Your task to perform on an android device: snooze an email in the gmail app Image 0: 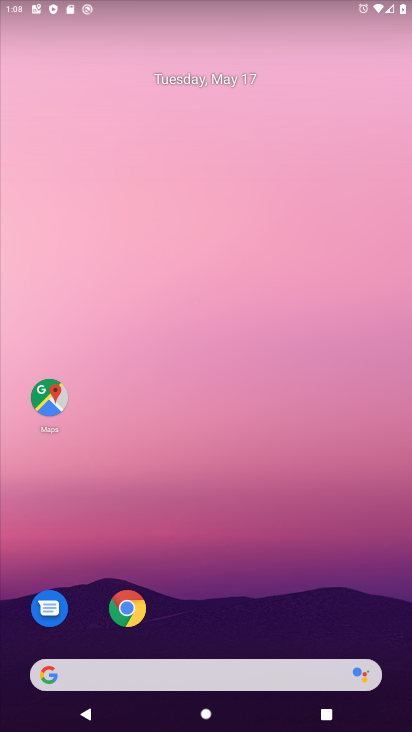
Step 0: drag from (204, 628) to (207, 225)
Your task to perform on an android device: snooze an email in the gmail app Image 1: 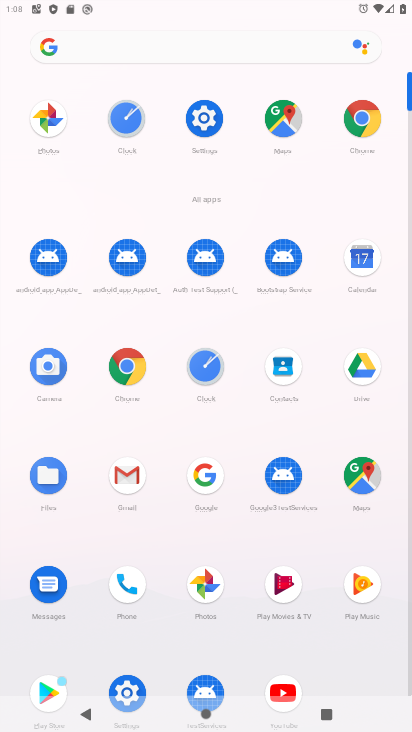
Step 1: click (132, 464)
Your task to perform on an android device: snooze an email in the gmail app Image 2: 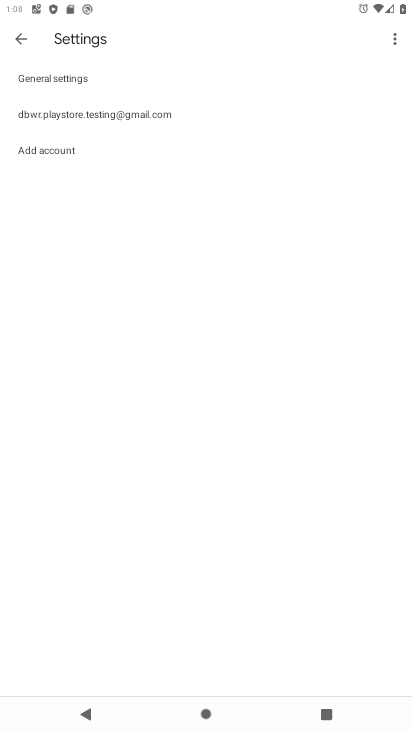
Step 2: click (30, 42)
Your task to perform on an android device: snooze an email in the gmail app Image 3: 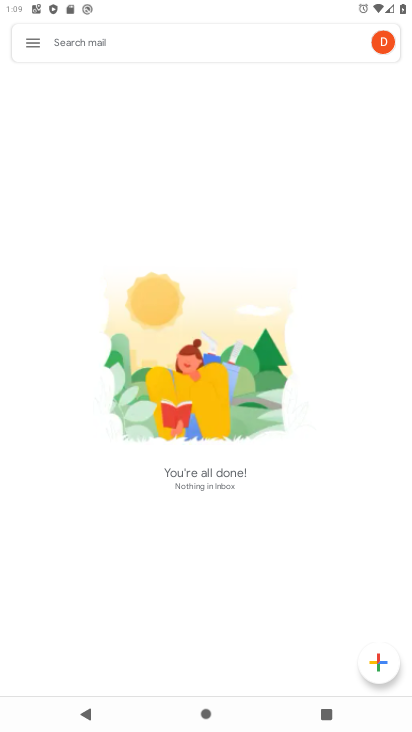
Step 3: task complete